Your task to perform on an android device: Do I have any events tomorrow? Image 0: 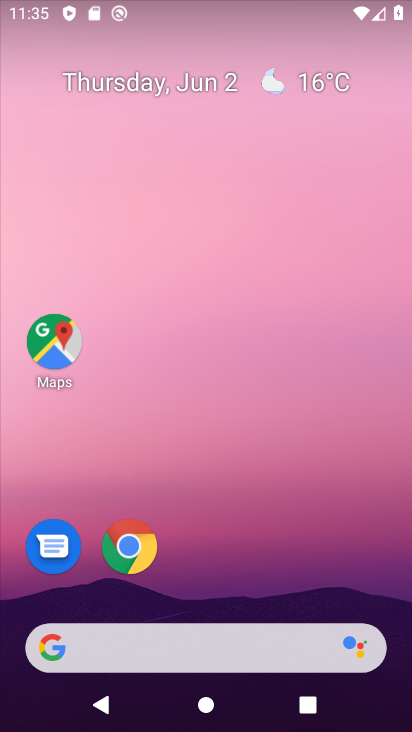
Step 0: drag from (289, 477) to (311, 141)
Your task to perform on an android device: Do I have any events tomorrow? Image 1: 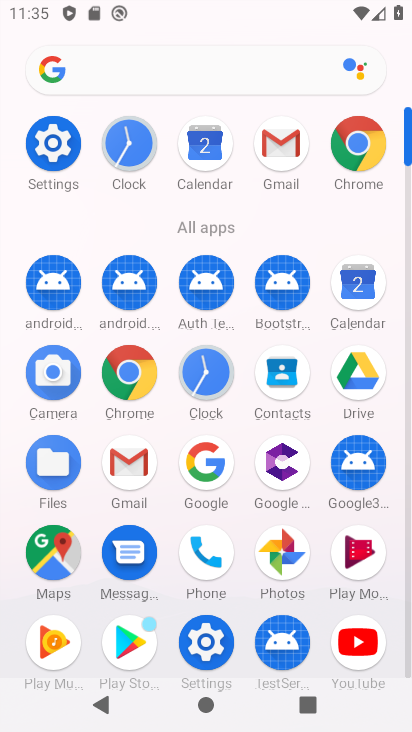
Step 1: click (340, 287)
Your task to perform on an android device: Do I have any events tomorrow? Image 2: 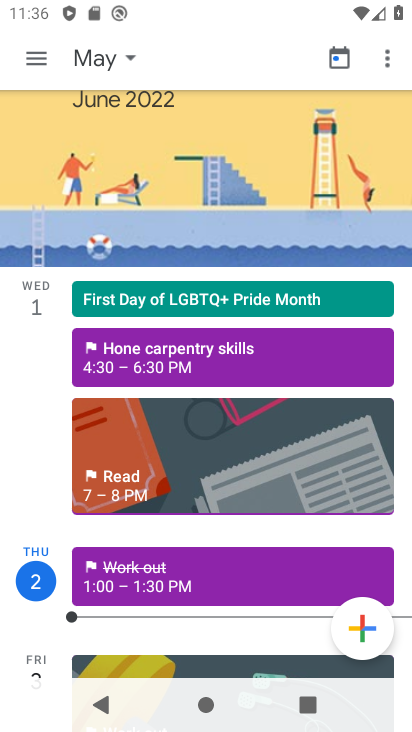
Step 2: click (94, 61)
Your task to perform on an android device: Do I have any events tomorrow? Image 3: 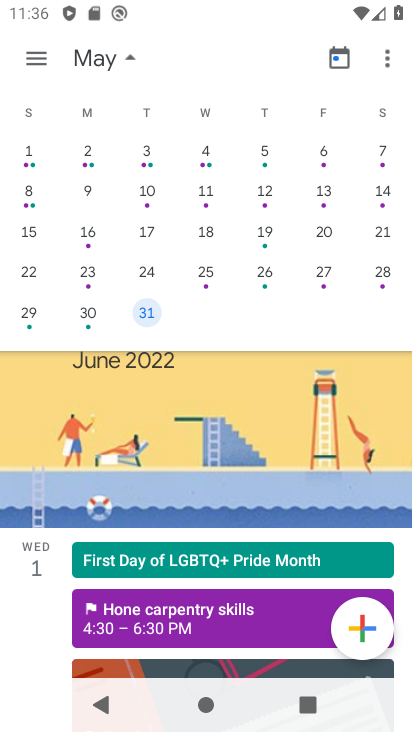
Step 3: drag from (342, 211) to (10, 226)
Your task to perform on an android device: Do I have any events tomorrow? Image 4: 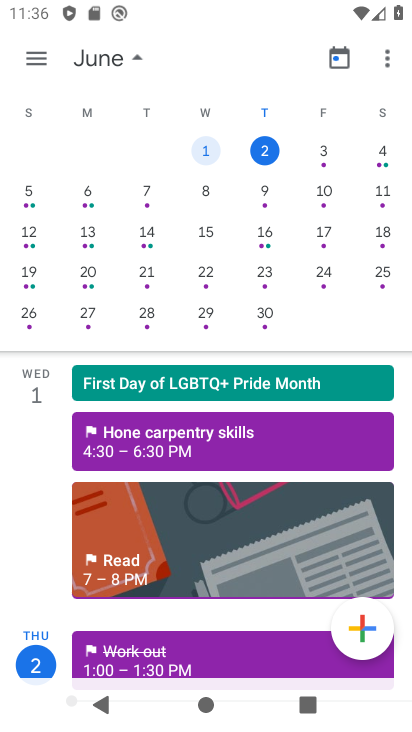
Step 4: click (324, 157)
Your task to perform on an android device: Do I have any events tomorrow? Image 5: 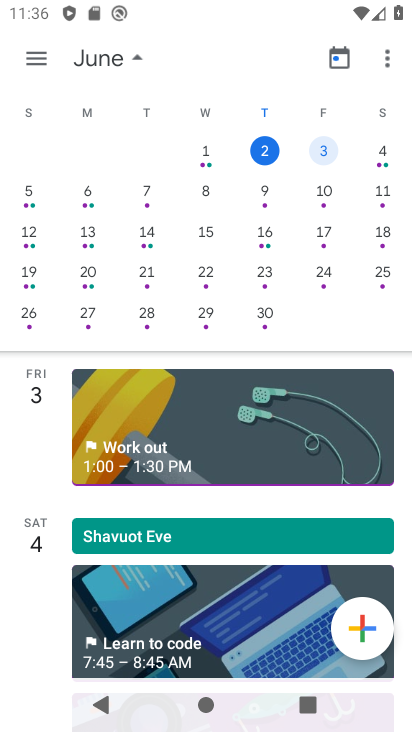
Step 5: task complete